Your task to perform on an android device: toggle sleep mode Image 0: 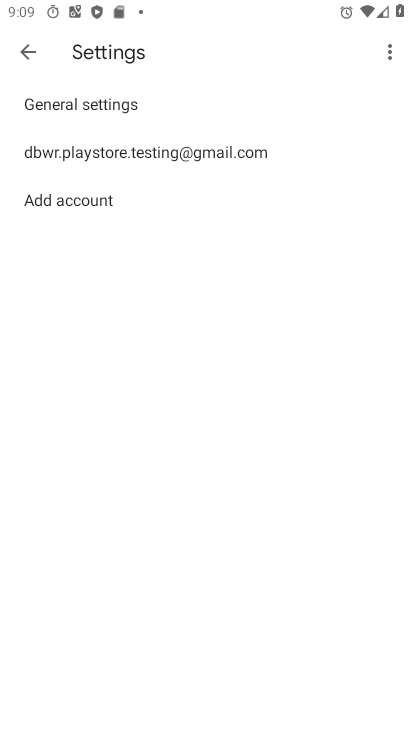
Step 0: press home button
Your task to perform on an android device: toggle sleep mode Image 1: 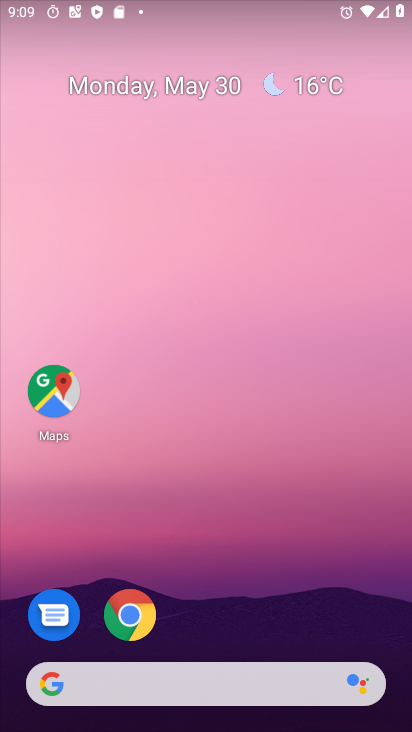
Step 1: drag from (306, 394) to (323, 1)
Your task to perform on an android device: toggle sleep mode Image 2: 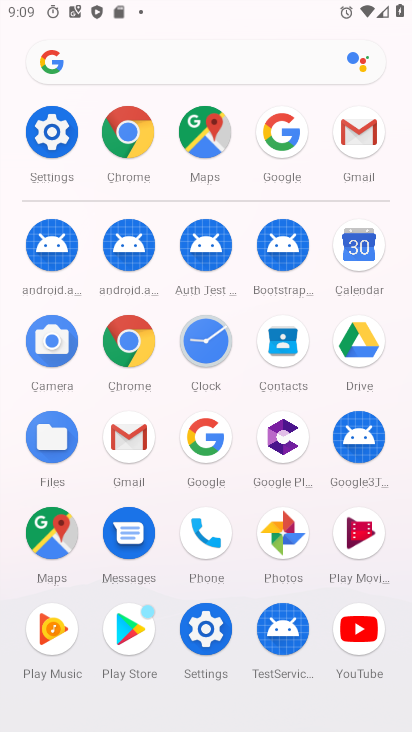
Step 2: click (53, 124)
Your task to perform on an android device: toggle sleep mode Image 3: 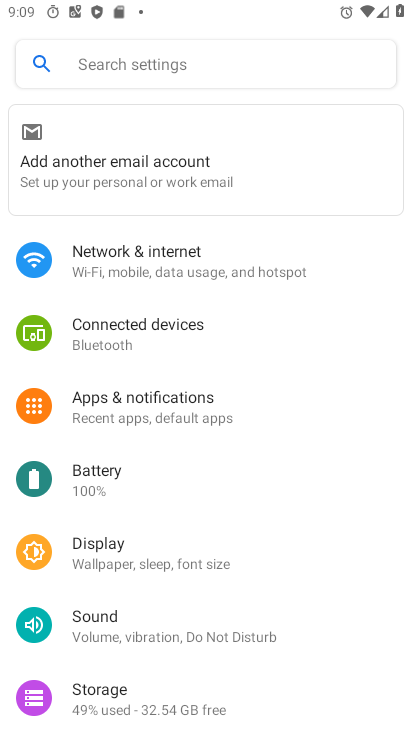
Step 3: click (139, 570)
Your task to perform on an android device: toggle sleep mode Image 4: 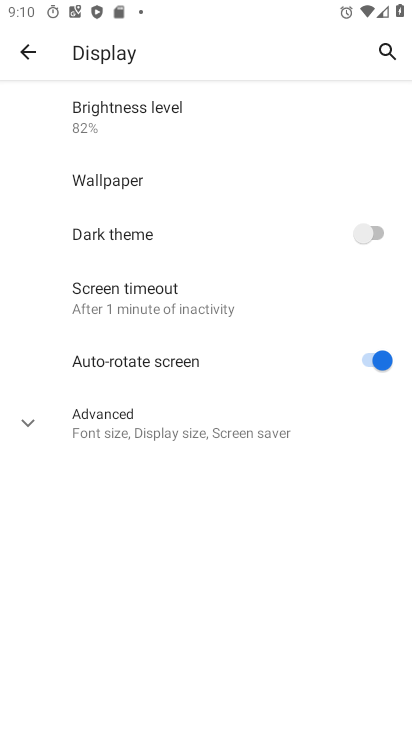
Step 4: click (109, 299)
Your task to perform on an android device: toggle sleep mode Image 5: 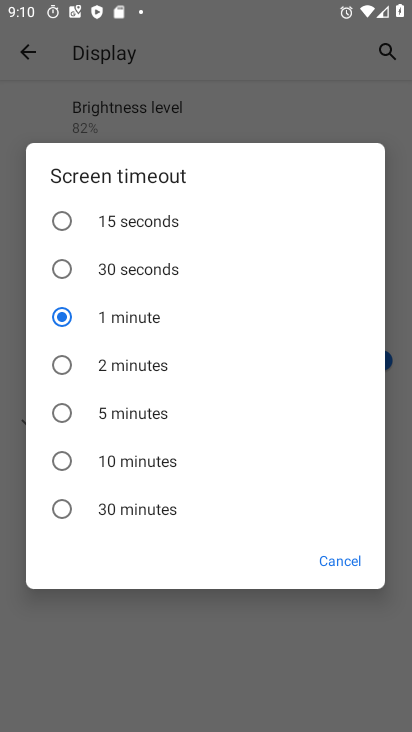
Step 5: click (90, 373)
Your task to perform on an android device: toggle sleep mode Image 6: 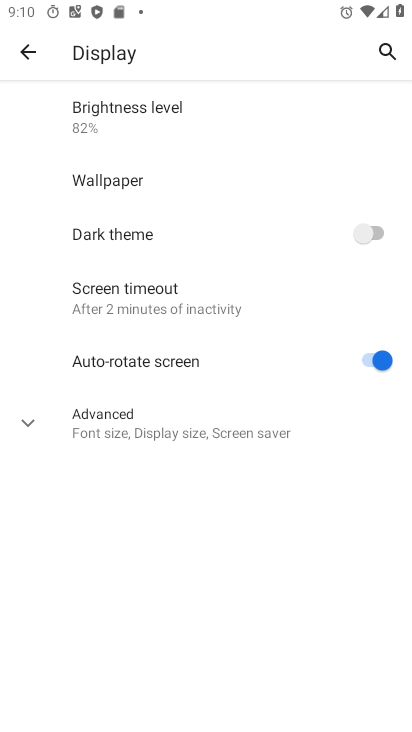
Step 6: task complete